Your task to perform on an android device: Open location settings Image 0: 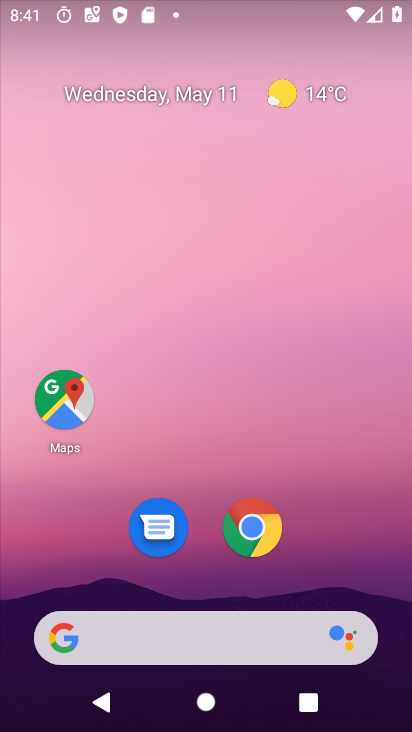
Step 0: drag from (245, 607) to (227, 204)
Your task to perform on an android device: Open location settings Image 1: 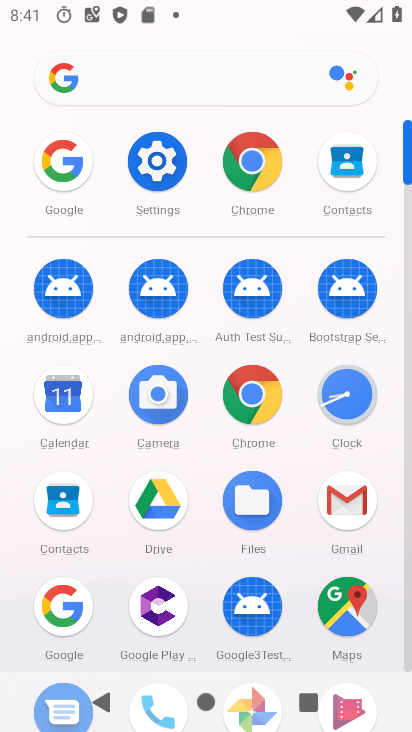
Step 1: click (180, 167)
Your task to perform on an android device: Open location settings Image 2: 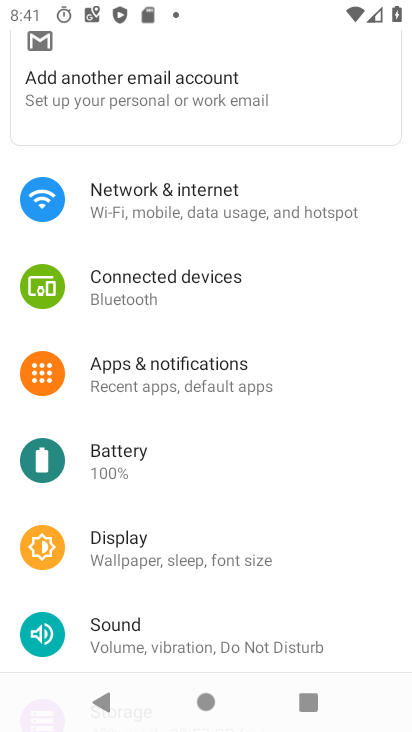
Step 2: drag from (163, 568) to (164, 371)
Your task to perform on an android device: Open location settings Image 3: 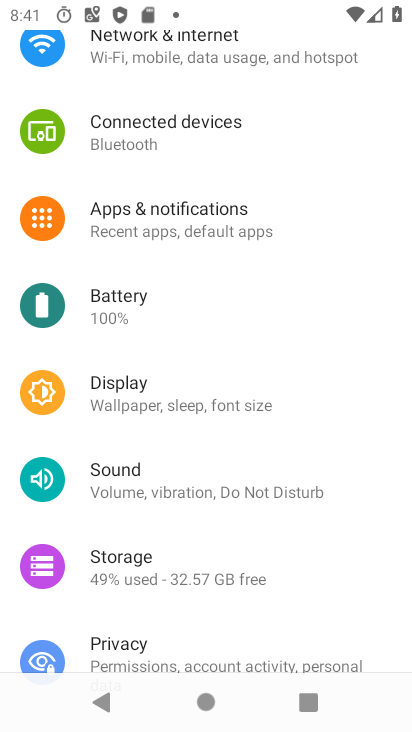
Step 3: drag from (182, 564) to (184, 314)
Your task to perform on an android device: Open location settings Image 4: 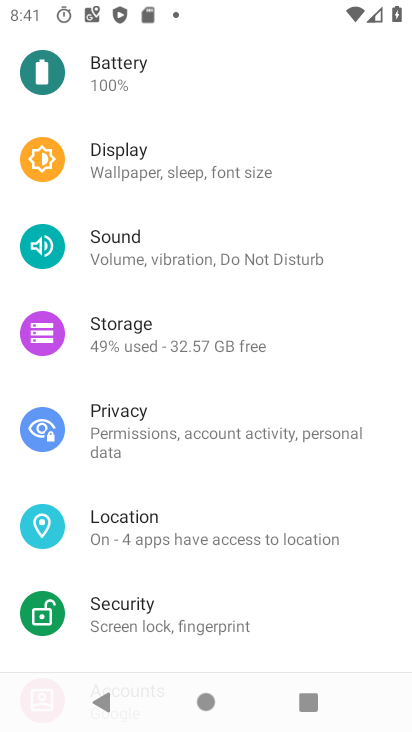
Step 4: click (181, 550)
Your task to perform on an android device: Open location settings Image 5: 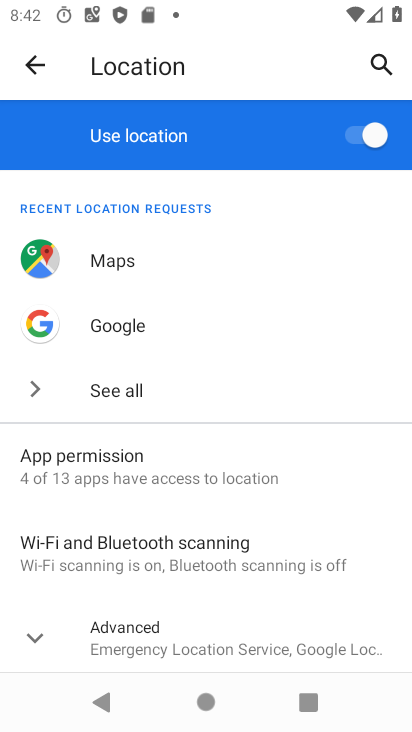
Step 5: task complete